Your task to perform on an android device: toggle javascript in the chrome app Image 0: 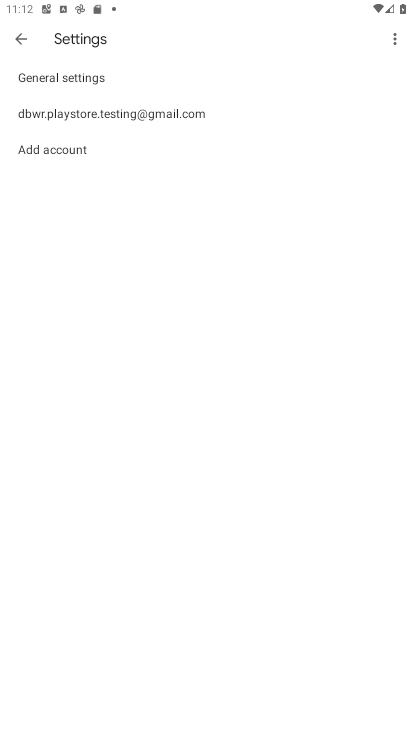
Step 0: press home button
Your task to perform on an android device: toggle javascript in the chrome app Image 1: 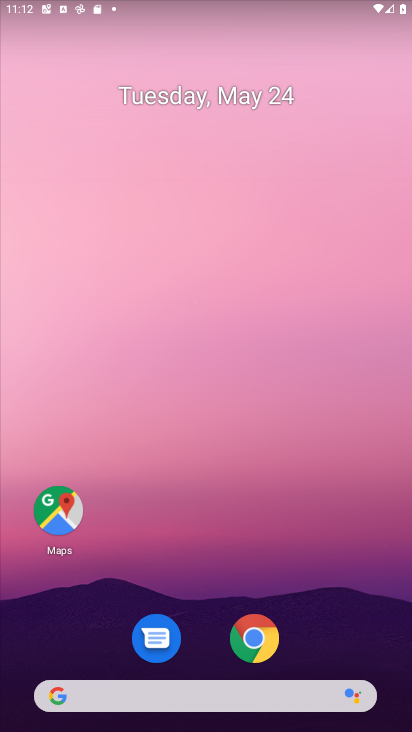
Step 1: click (242, 635)
Your task to perform on an android device: toggle javascript in the chrome app Image 2: 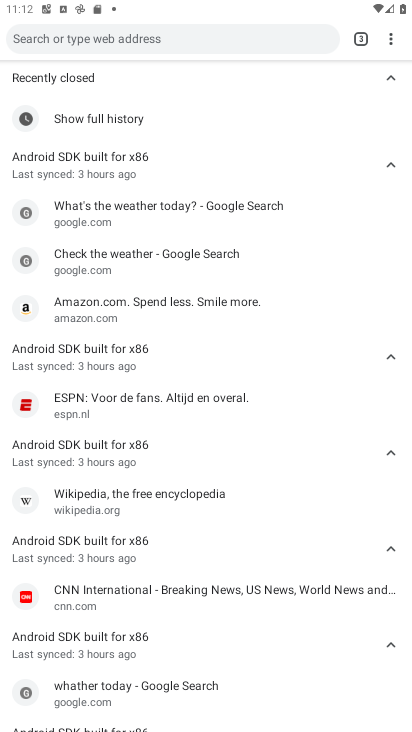
Step 2: click (394, 42)
Your task to perform on an android device: toggle javascript in the chrome app Image 3: 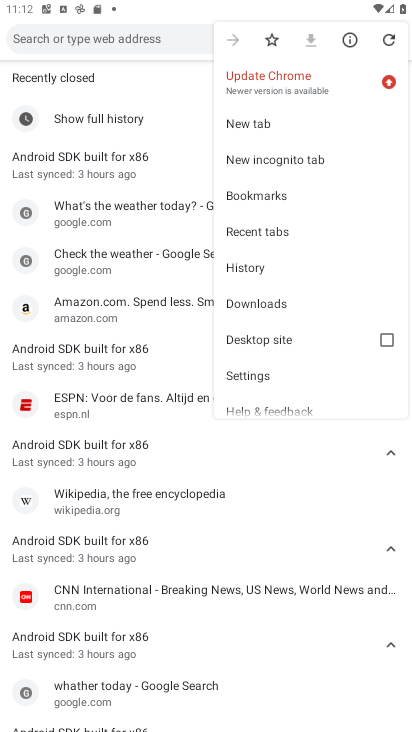
Step 3: click (289, 373)
Your task to perform on an android device: toggle javascript in the chrome app Image 4: 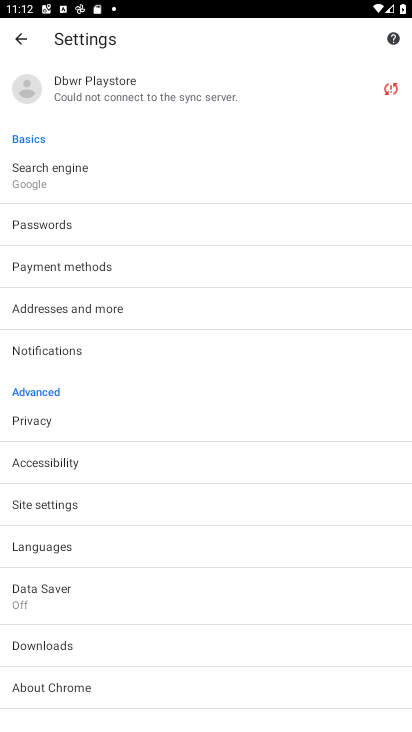
Step 4: click (91, 509)
Your task to perform on an android device: toggle javascript in the chrome app Image 5: 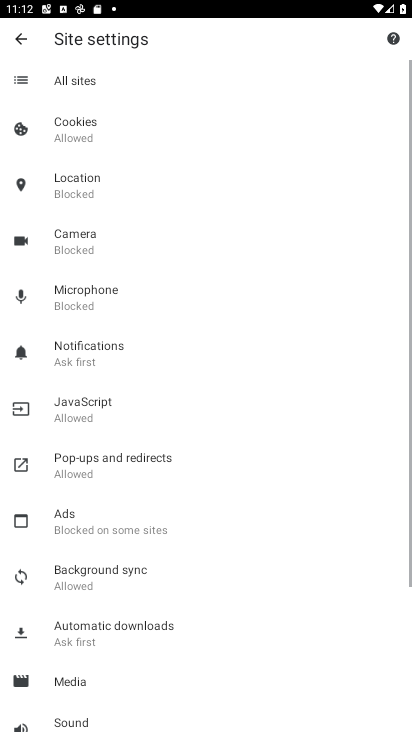
Step 5: click (123, 409)
Your task to perform on an android device: toggle javascript in the chrome app Image 6: 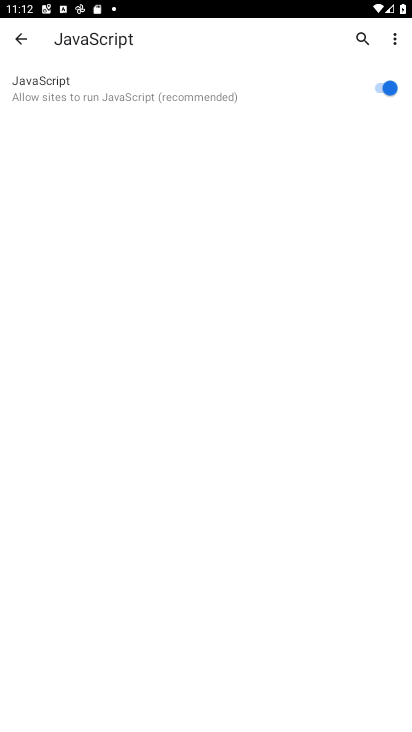
Step 6: click (385, 88)
Your task to perform on an android device: toggle javascript in the chrome app Image 7: 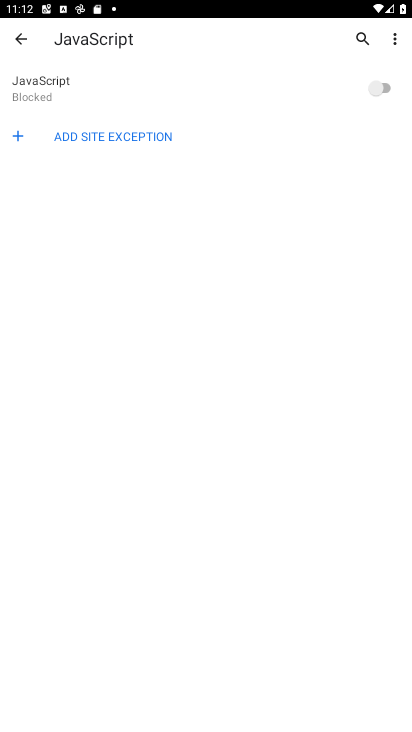
Step 7: task complete